Your task to perform on an android device: Open Google Image 0: 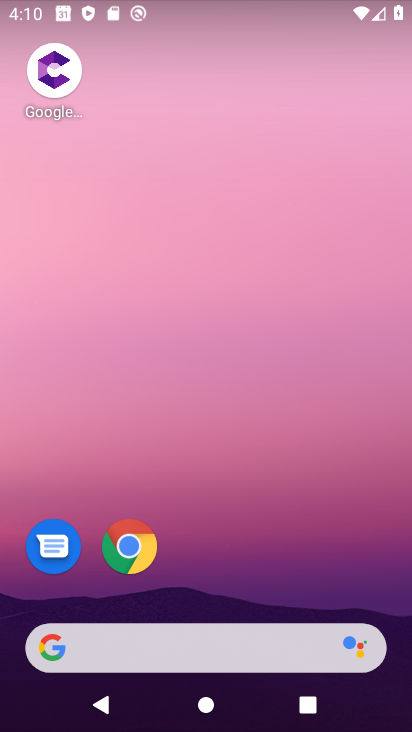
Step 0: drag from (214, 574) to (211, 341)
Your task to perform on an android device: Open Google Image 1: 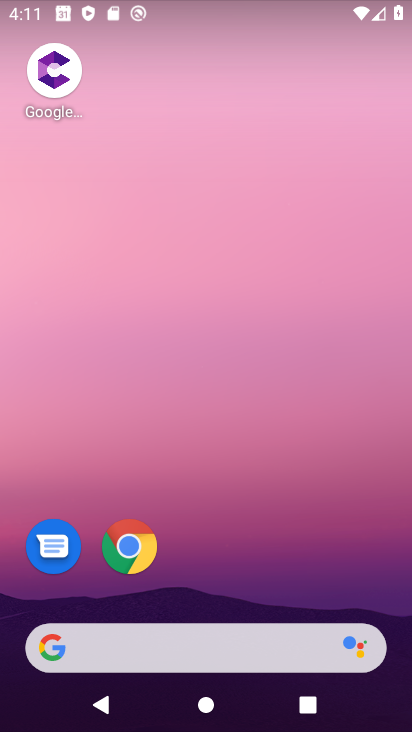
Step 1: drag from (178, 582) to (163, 246)
Your task to perform on an android device: Open Google Image 2: 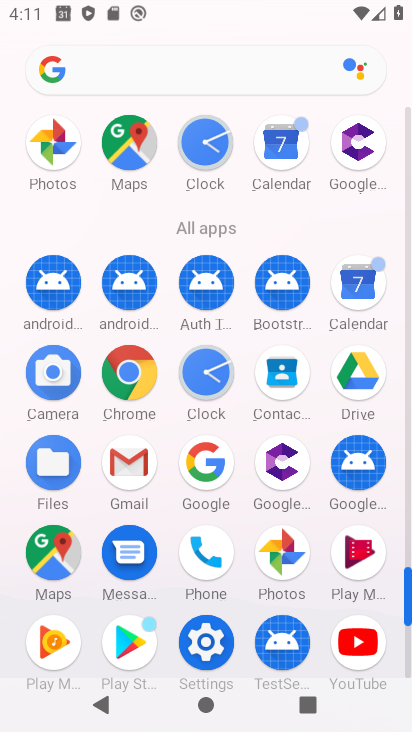
Step 2: click (197, 477)
Your task to perform on an android device: Open Google Image 3: 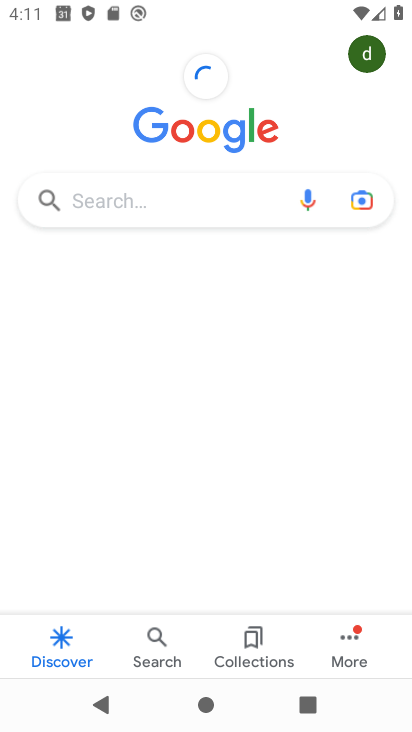
Step 3: task complete